Your task to perform on an android device: open app "Grab" Image 0: 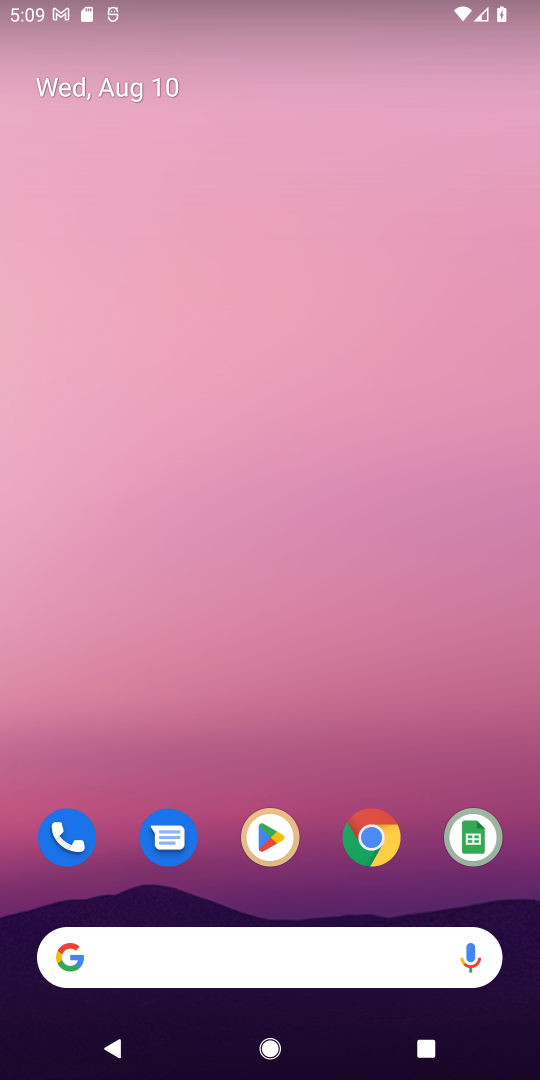
Step 0: click (274, 846)
Your task to perform on an android device: open app "Grab" Image 1: 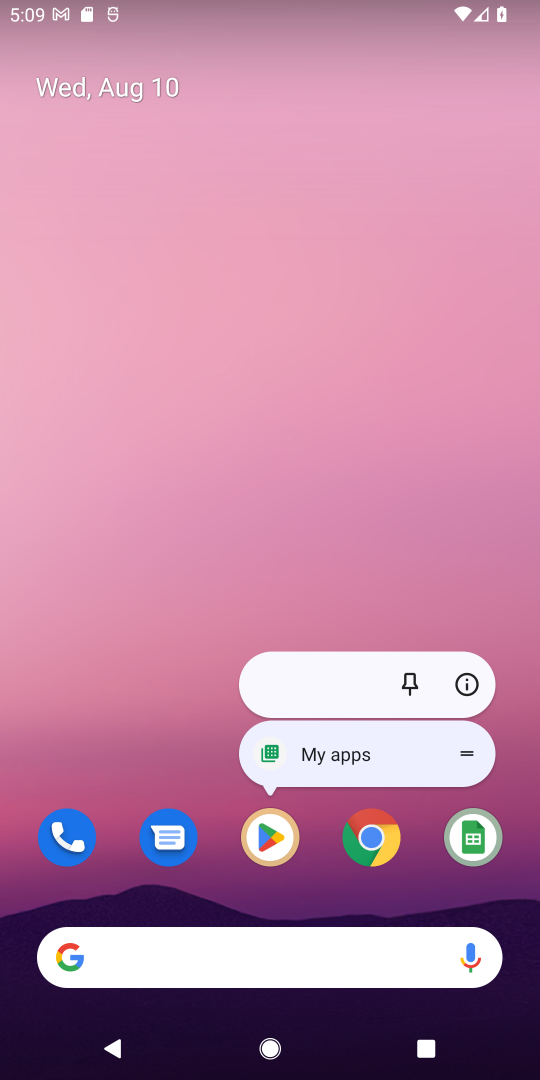
Step 1: click (263, 841)
Your task to perform on an android device: open app "Grab" Image 2: 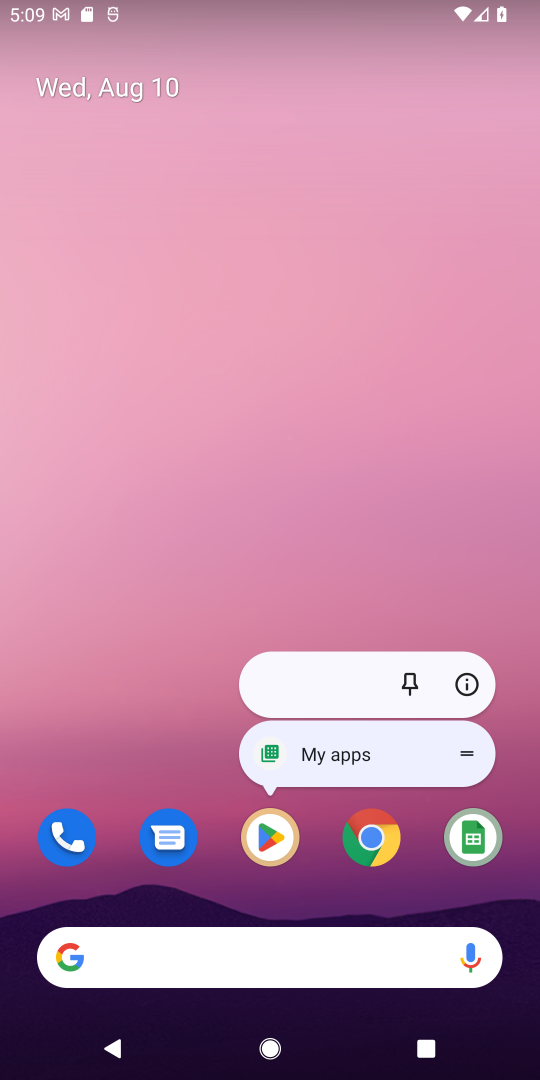
Step 2: click (266, 840)
Your task to perform on an android device: open app "Grab" Image 3: 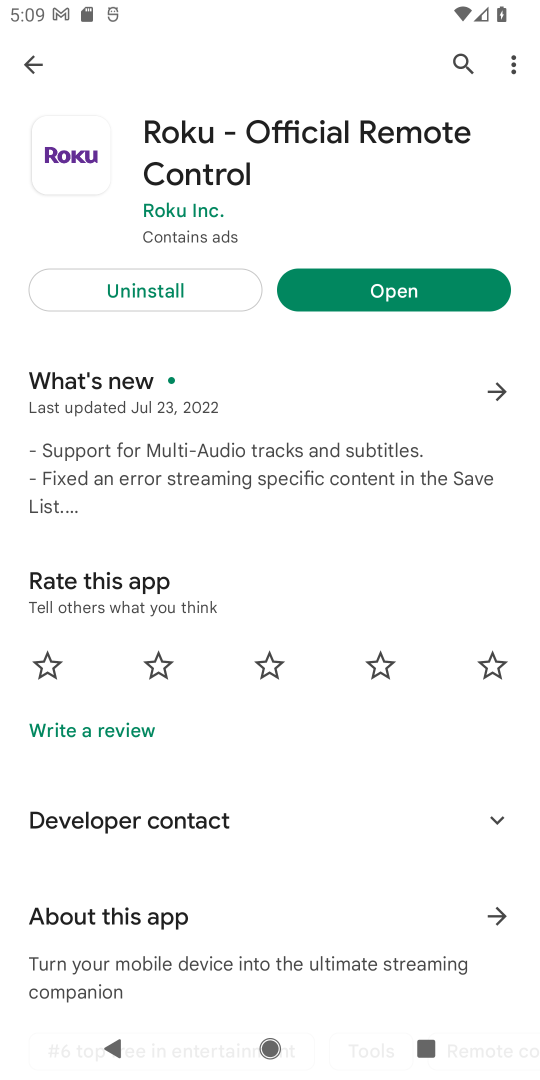
Step 3: click (460, 59)
Your task to perform on an android device: open app "Grab" Image 4: 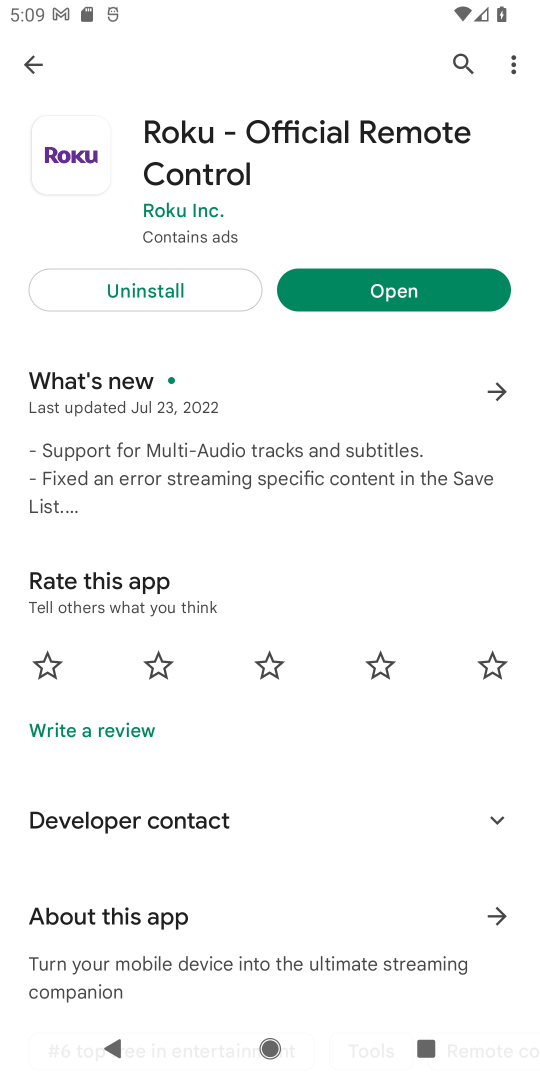
Step 4: click (467, 53)
Your task to perform on an android device: open app "Grab" Image 5: 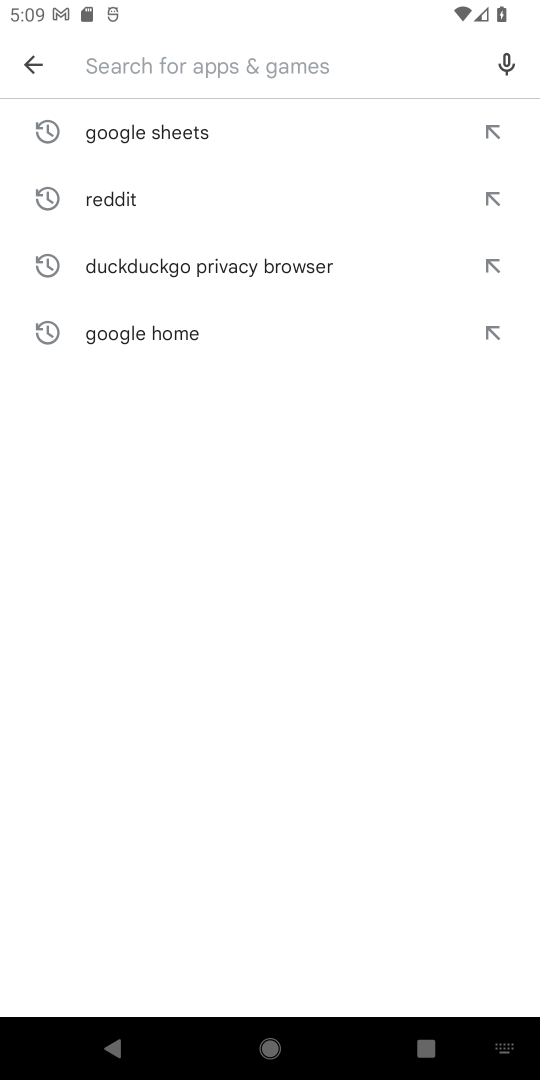
Step 5: type "Grab"
Your task to perform on an android device: open app "Grab" Image 6: 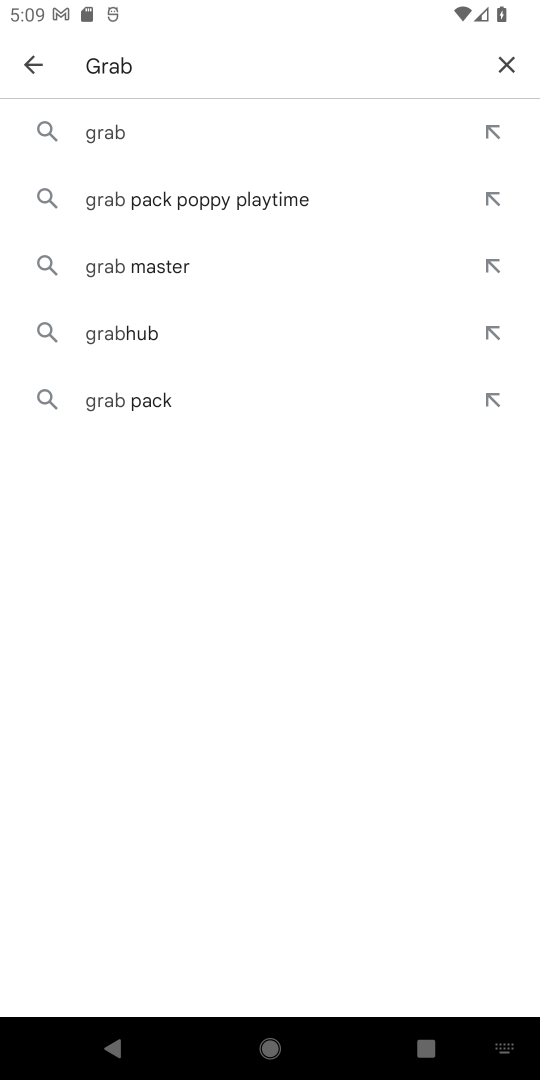
Step 6: click (114, 132)
Your task to perform on an android device: open app "Grab" Image 7: 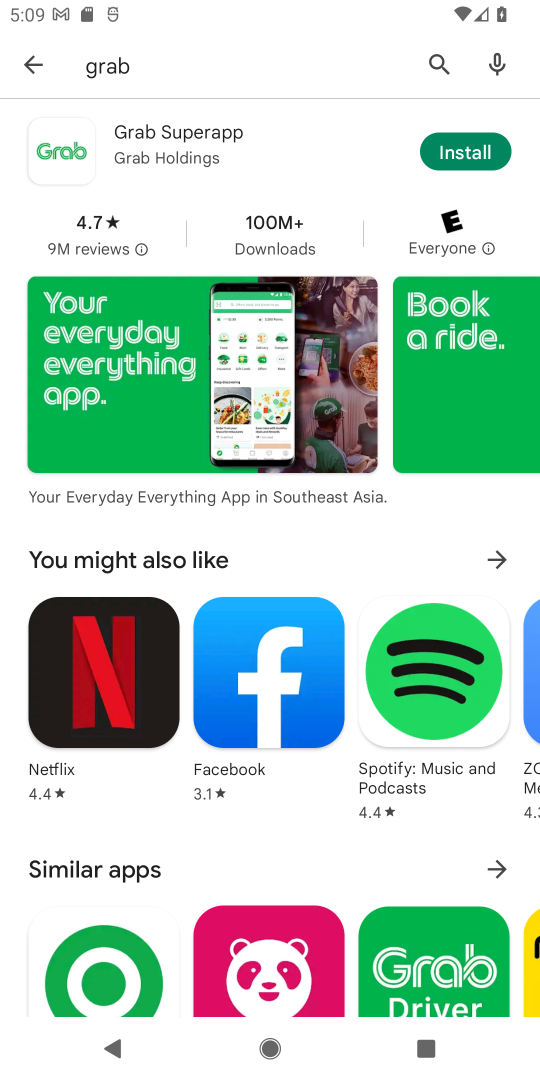
Step 7: task complete